Your task to perform on an android device: Check the news Image 0: 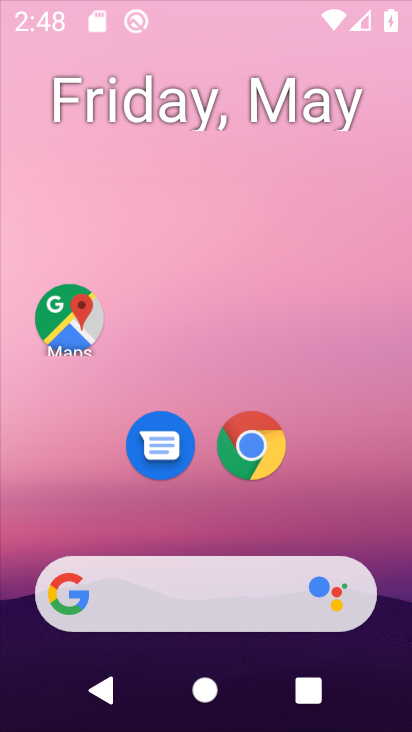
Step 0: click (357, 62)
Your task to perform on an android device: Check the news Image 1: 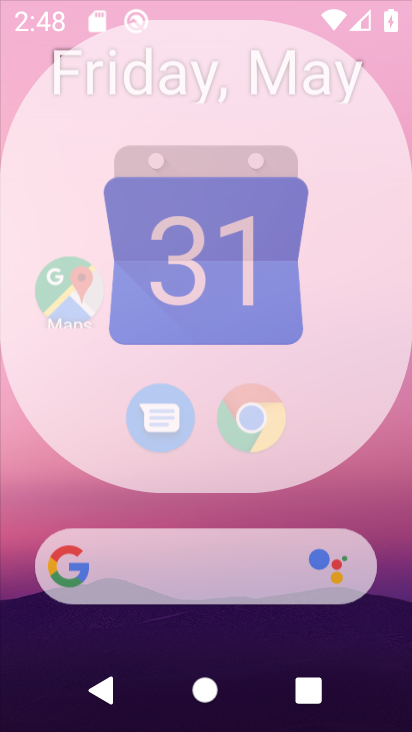
Step 1: drag from (212, 567) to (279, 63)
Your task to perform on an android device: Check the news Image 2: 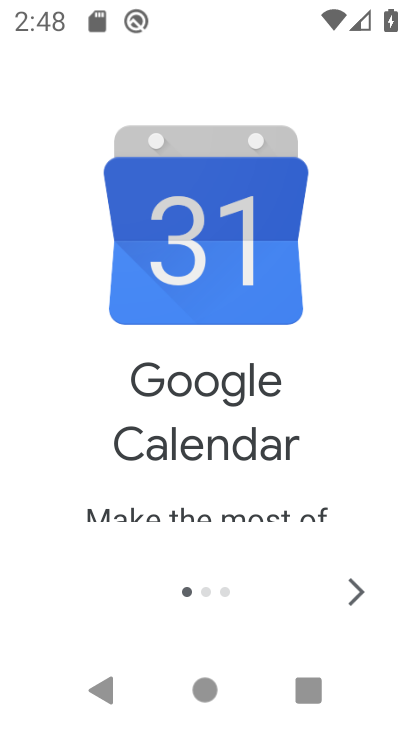
Step 2: press home button
Your task to perform on an android device: Check the news Image 3: 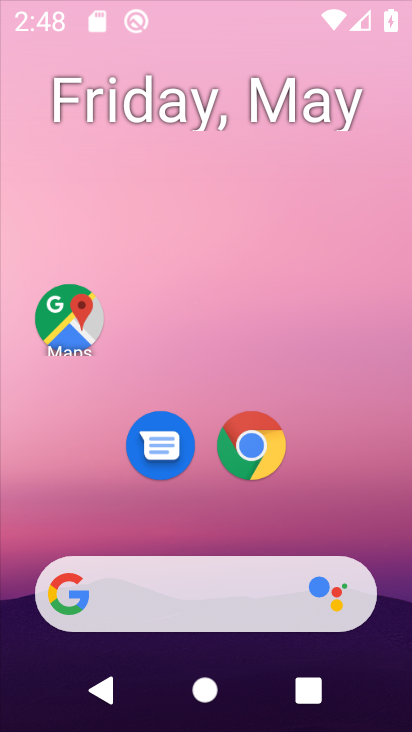
Step 3: drag from (194, 474) to (220, 42)
Your task to perform on an android device: Check the news Image 4: 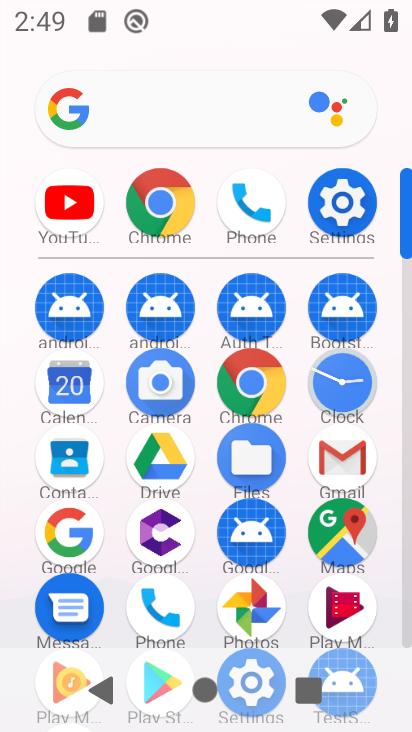
Step 4: click (216, 112)
Your task to perform on an android device: Check the news Image 5: 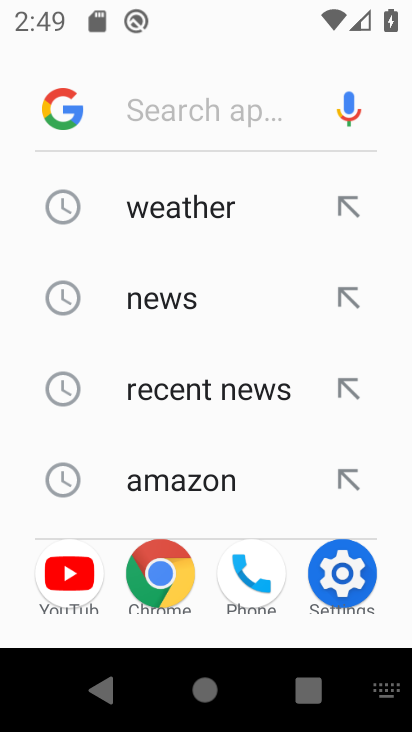
Step 5: click (167, 315)
Your task to perform on an android device: Check the news Image 6: 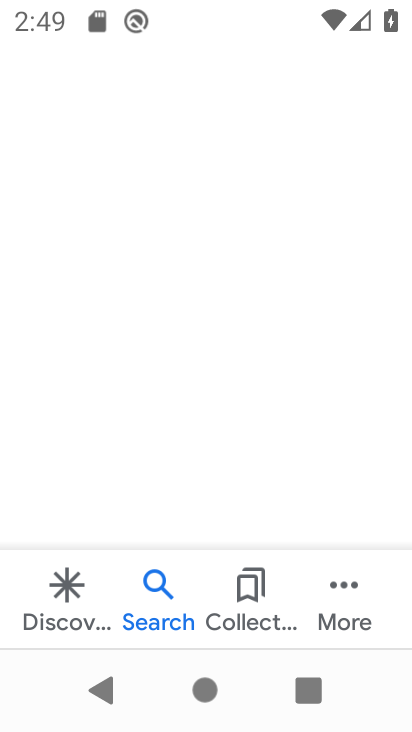
Step 6: task complete